Your task to perform on an android device: Open Youtube and go to "Your channel" Image 0: 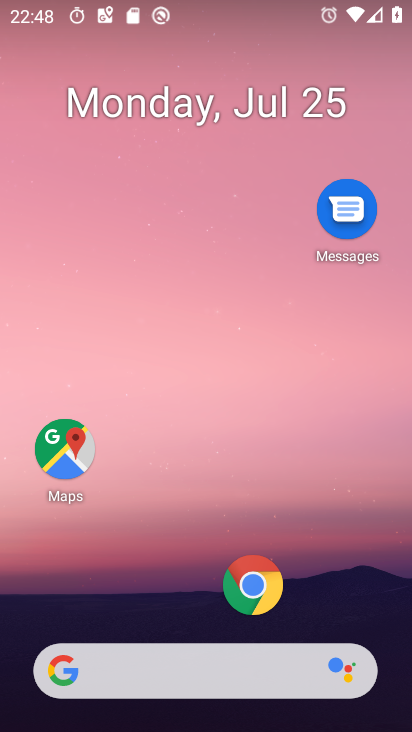
Step 0: press home button
Your task to perform on an android device: Open Youtube and go to "Your channel" Image 1: 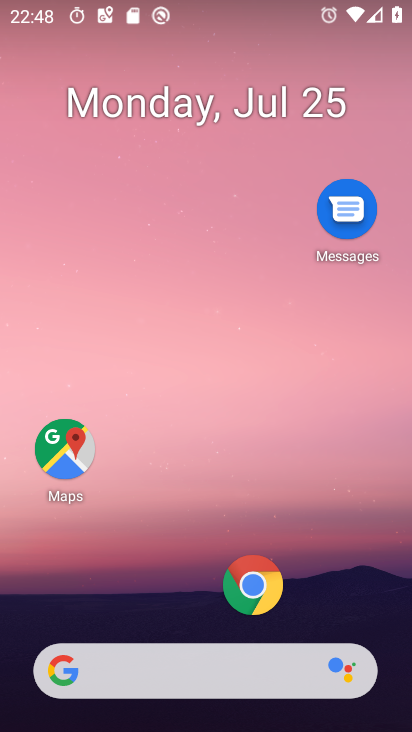
Step 1: drag from (176, 667) to (322, 32)
Your task to perform on an android device: Open Youtube and go to "Your channel" Image 2: 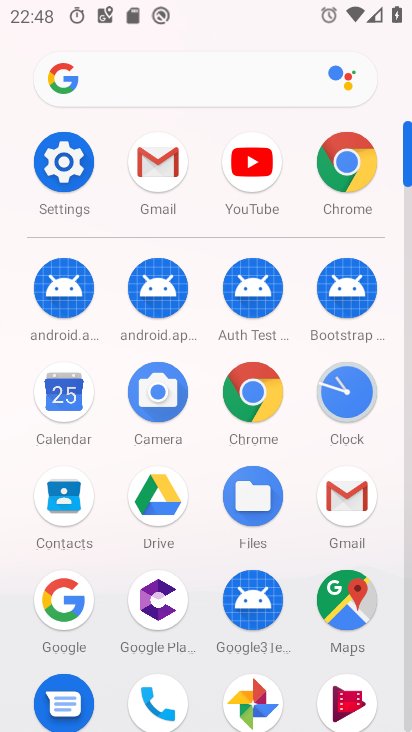
Step 2: click (254, 168)
Your task to perform on an android device: Open Youtube and go to "Your channel" Image 3: 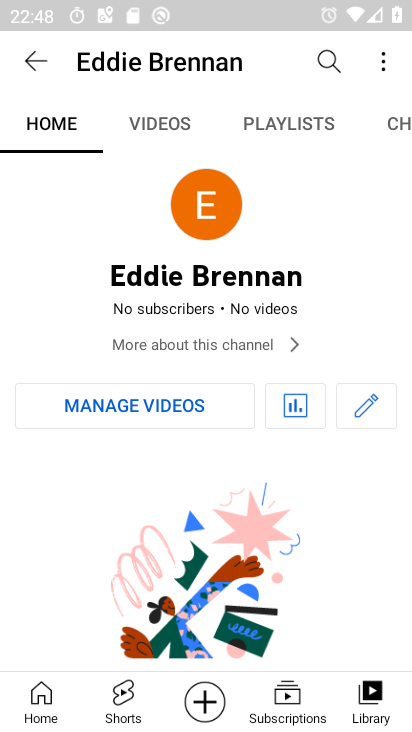
Step 3: task complete